Your task to perform on an android device: turn vacation reply on in the gmail app Image 0: 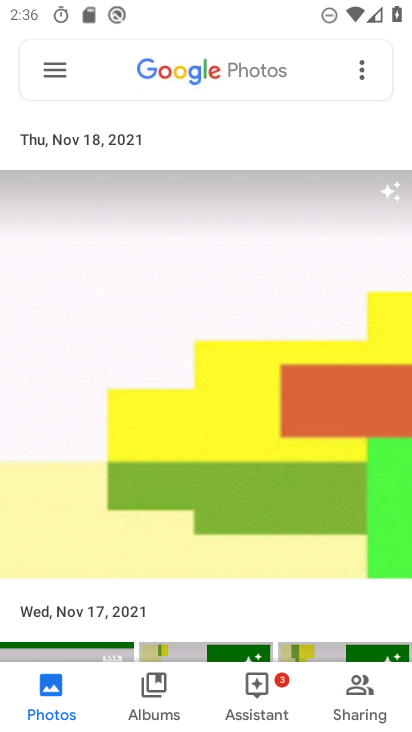
Step 0: press home button
Your task to perform on an android device: turn vacation reply on in the gmail app Image 1: 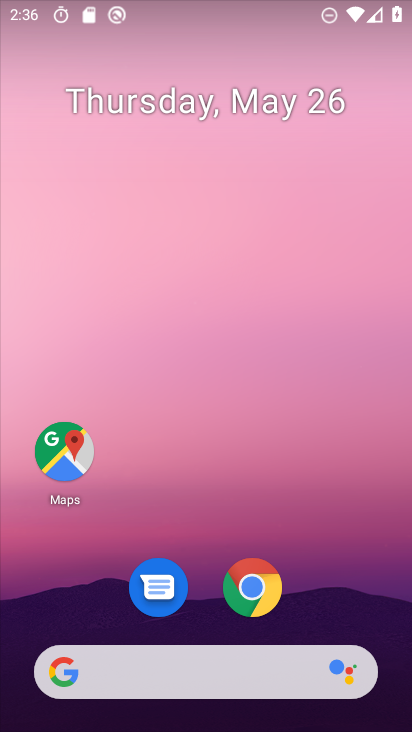
Step 1: drag from (345, 532) to (295, 41)
Your task to perform on an android device: turn vacation reply on in the gmail app Image 2: 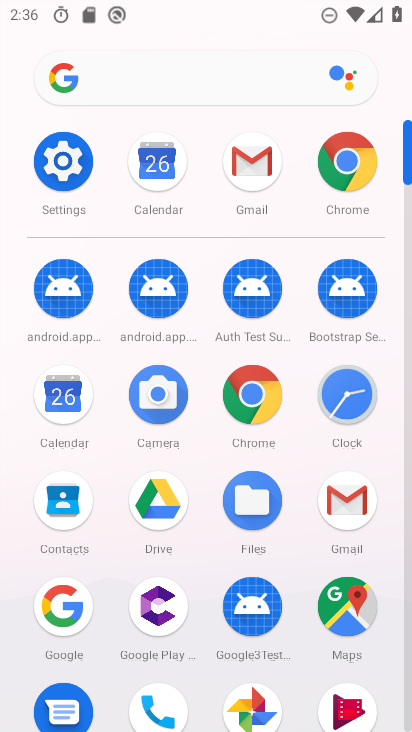
Step 2: click (248, 157)
Your task to perform on an android device: turn vacation reply on in the gmail app Image 3: 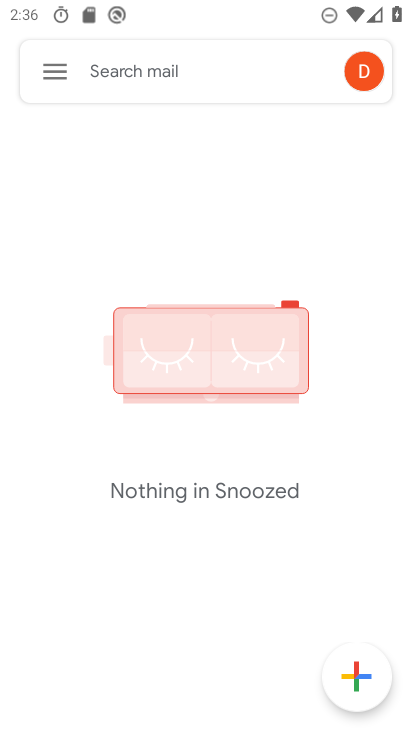
Step 3: click (91, 101)
Your task to perform on an android device: turn vacation reply on in the gmail app Image 4: 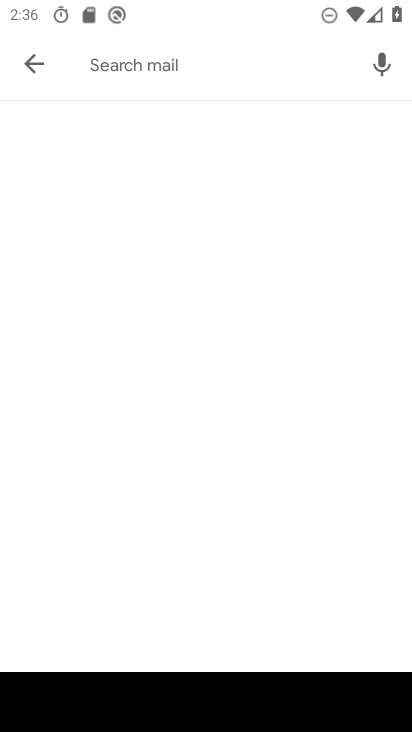
Step 4: click (47, 61)
Your task to perform on an android device: turn vacation reply on in the gmail app Image 5: 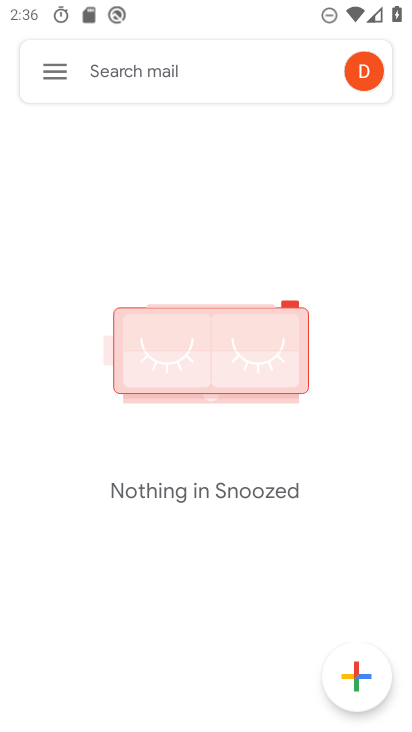
Step 5: click (47, 58)
Your task to perform on an android device: turn vacation reply on in the gmail app Image 6: 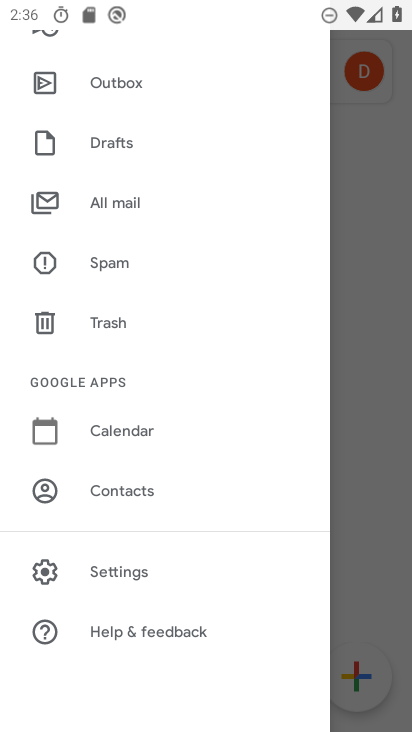
Step 6: click (102, 563)
Your task to perform on an android device: turn vacation reply on in the gmail app Image 7: 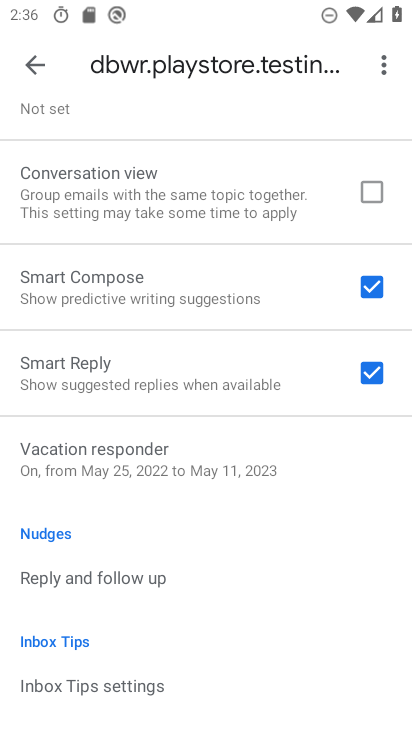
Step 7: drag from (193, 622) to (224, 228)
Your task to perform on an android device: turn vacation reply on in the gmail app Image 8: 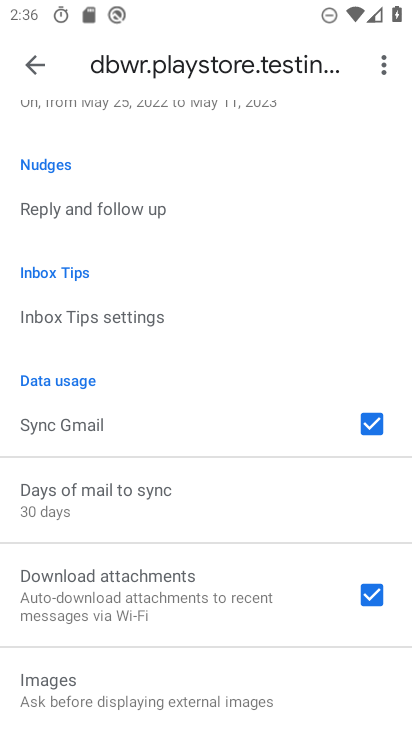
Step 8: drag from (218, 674) to (225, 271)
Your task to perform on an android device: turn vacation reply on in the gmail app Image 9: 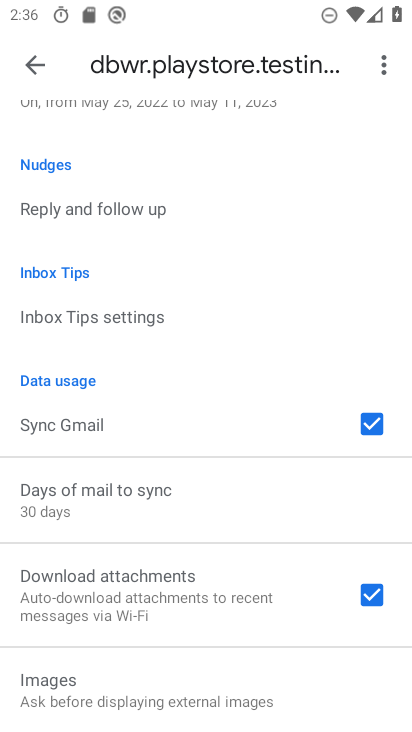
Step 9: drag from (227, 383) to (226, 640)
Your task to perform on an android device: turn vacation reply on in the gmail app Image 10: 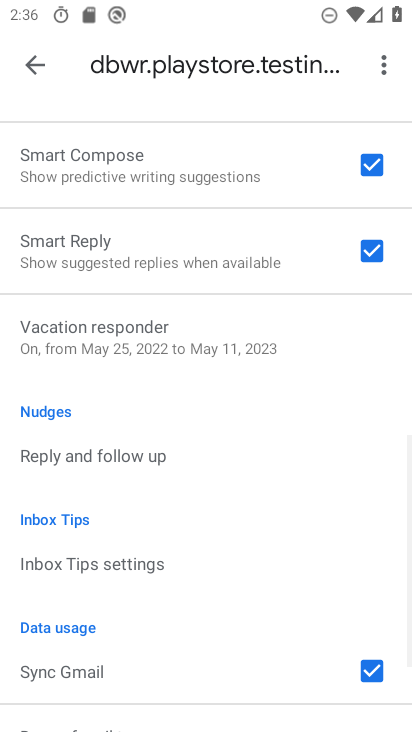
Step 10: click (174, 352)
Your task to perform on an android device: turn vacation reply on in the gmail app Image 11: 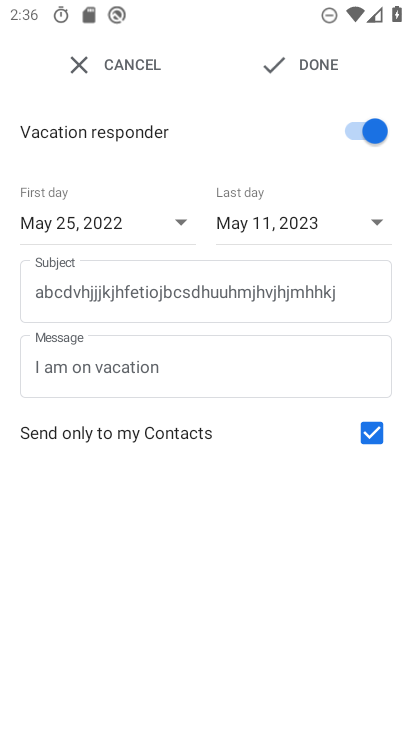
Step 11: task complete